Your task to perform on an android device: install app "Adobe Acrobat Reader" Image 0: 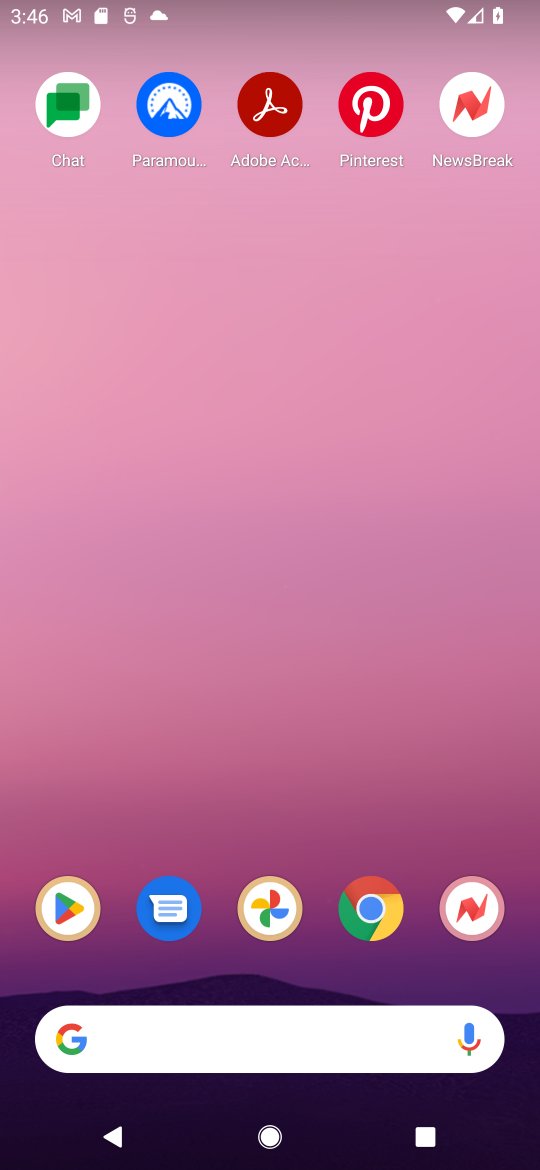
Step 0: click (61, 889)
Your task to perform on an android device: install app "Adobe Acrobat Reader" Image 1: 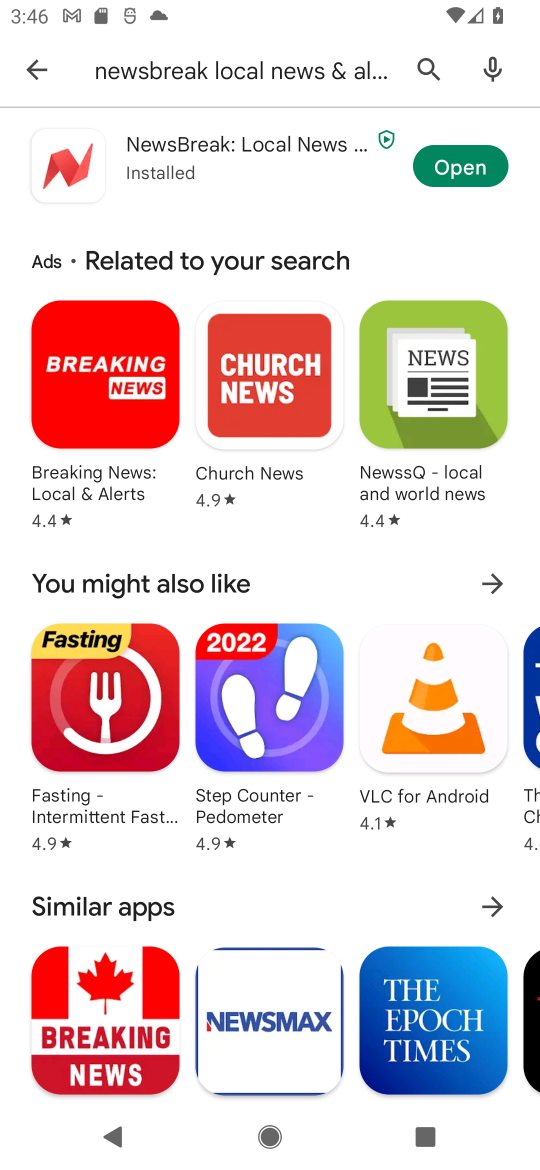
Step 1: click (431, 75)
Your task to perform on an android device: install app "Adobe Acrobat Reader" Image 2: 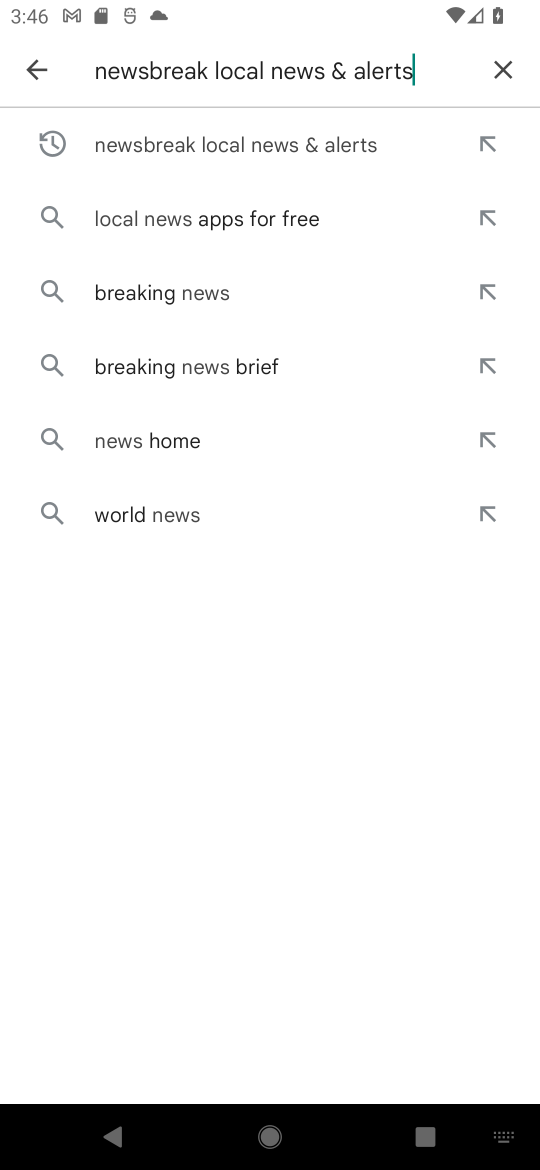
Step 2: click (505, 77)
Your task to perform on an android device: install app "Adobe Acrobat Reader" Image 3: 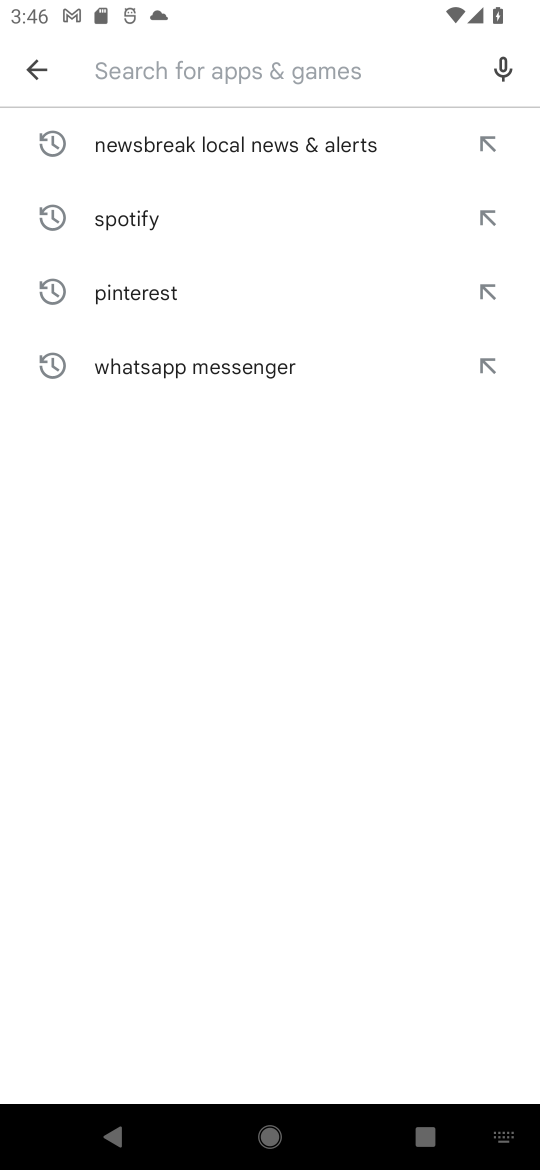
Step 3: type "Adobe Acrobat Reader"
Your task to perform on an android device: install app "Adobe Acrobat Reader" Image 4: 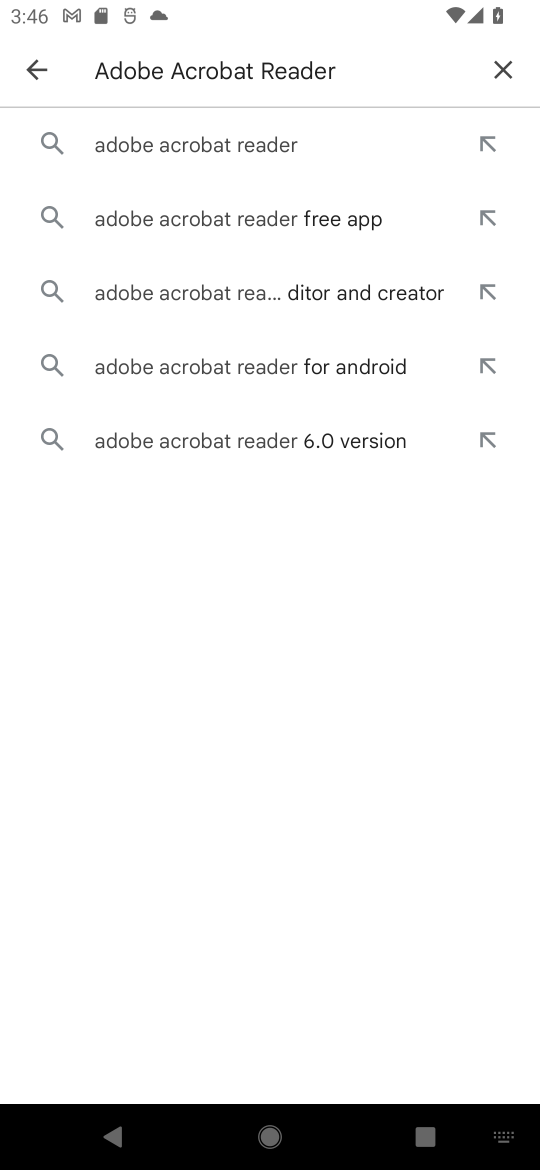
Step 4: click (348, 138)
Your task to perform on an android device: install app "Adobe Acrobat Reader" Image 5: 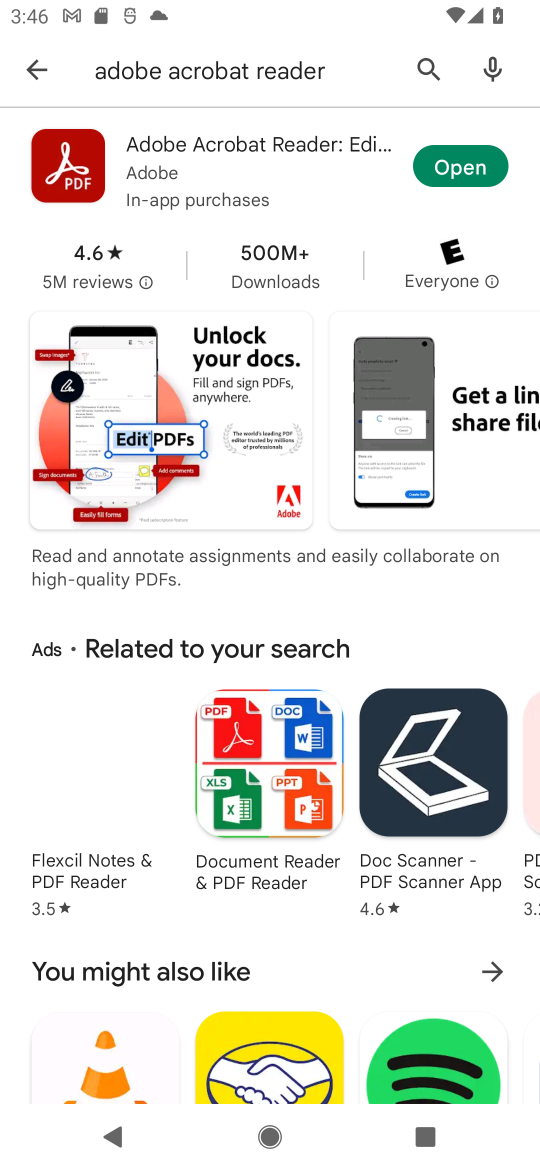
Step 5: click (456, 158)
Your task to perform on an android device: install app "Adobe Acrobat Reader" Image 6: 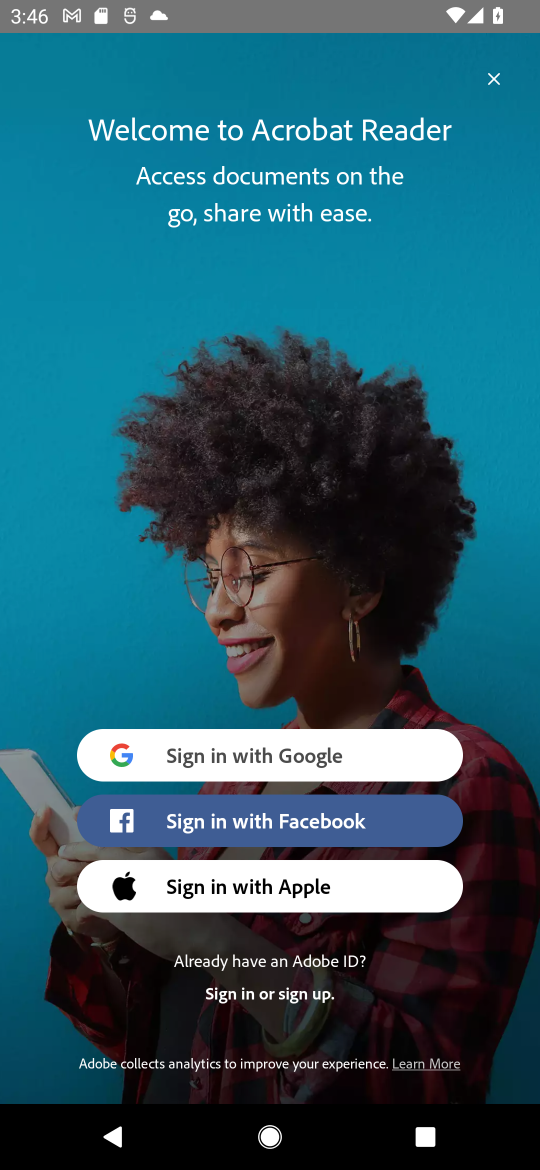
Step 6: click (255, 753)
Your task to perform on an android device: install app "Adobe Acrobat Reader" Image 7: 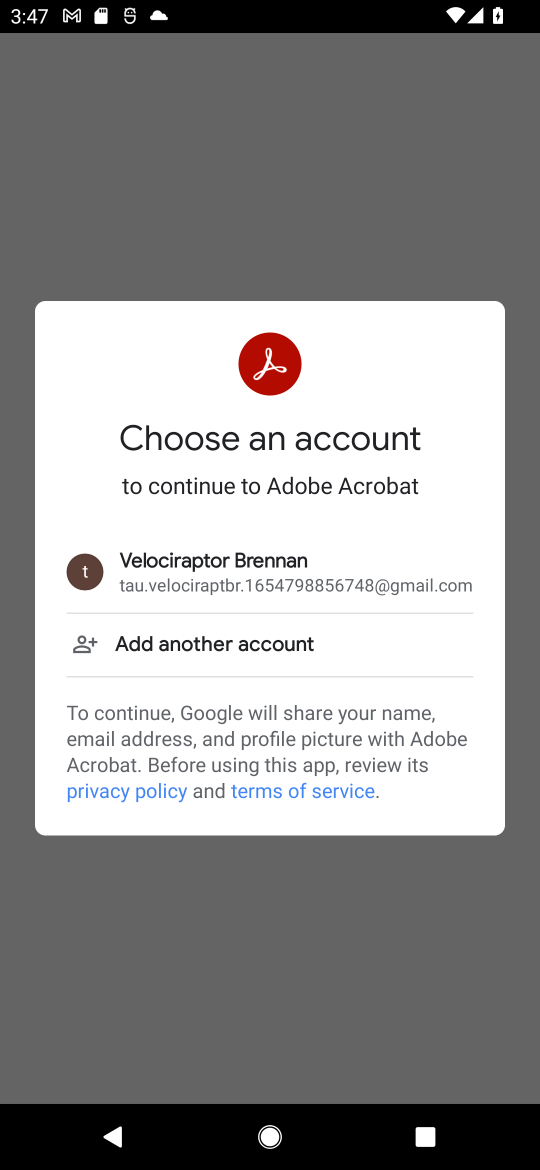
Step 7: click (230, 565)
Your task to perform on an android device: install app "Adobe Acrobat Reader" Image 8: 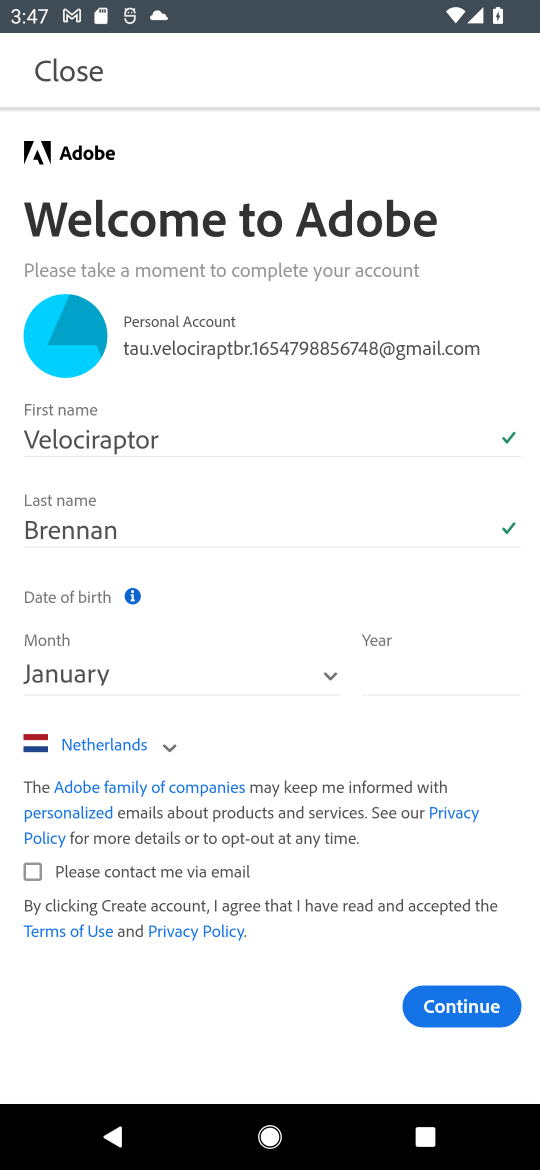
Step 8: click (333, 670)
Your task to perform on an android device: install app "Adobe Acrobat Reader" Image 9: 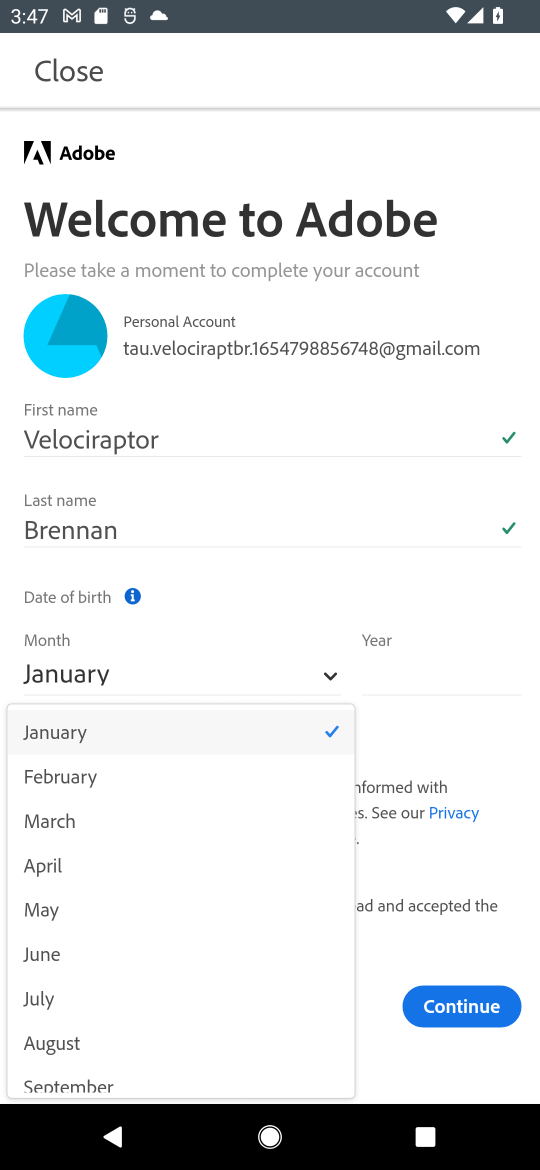
Step 9: click (69, 948)
Your task to perform on an android device: install app "Adobe Acrobat Reader" Image 10: 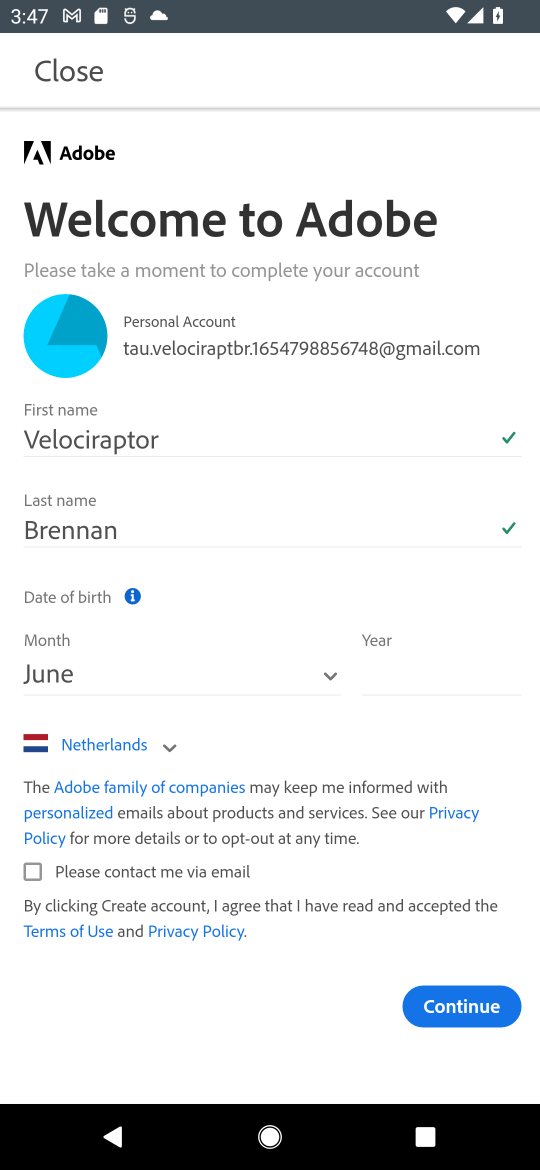
Step 10: click (418, 679)
Your task to perform on an android device: install app "Adobe Acrobat Reader" Image 11: 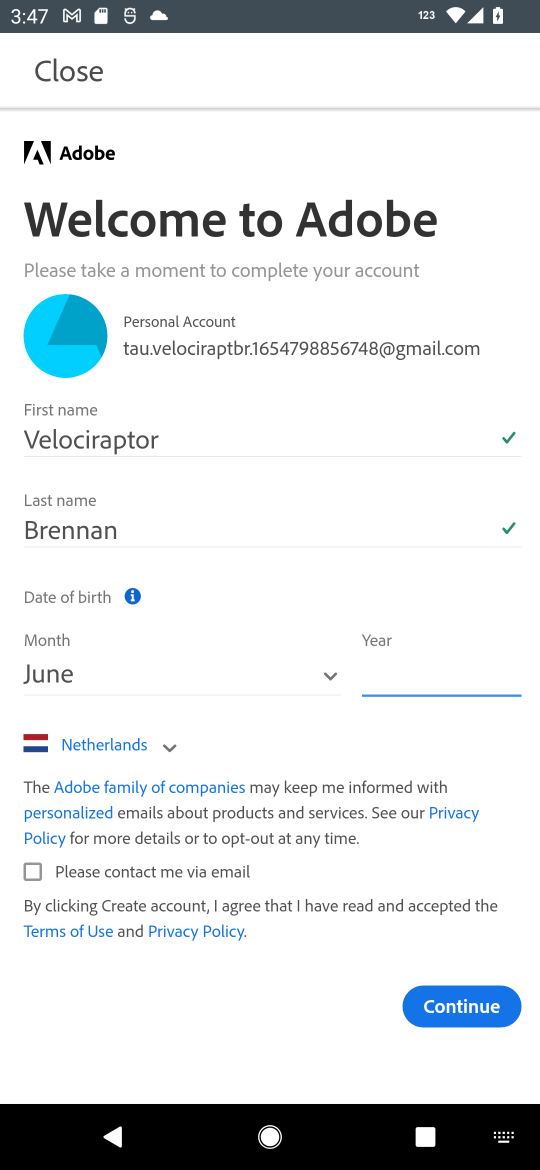
Step 11: type "1998"
Your task to perform on an android device: install app "Adobe Acrobat Reader" Image 12: 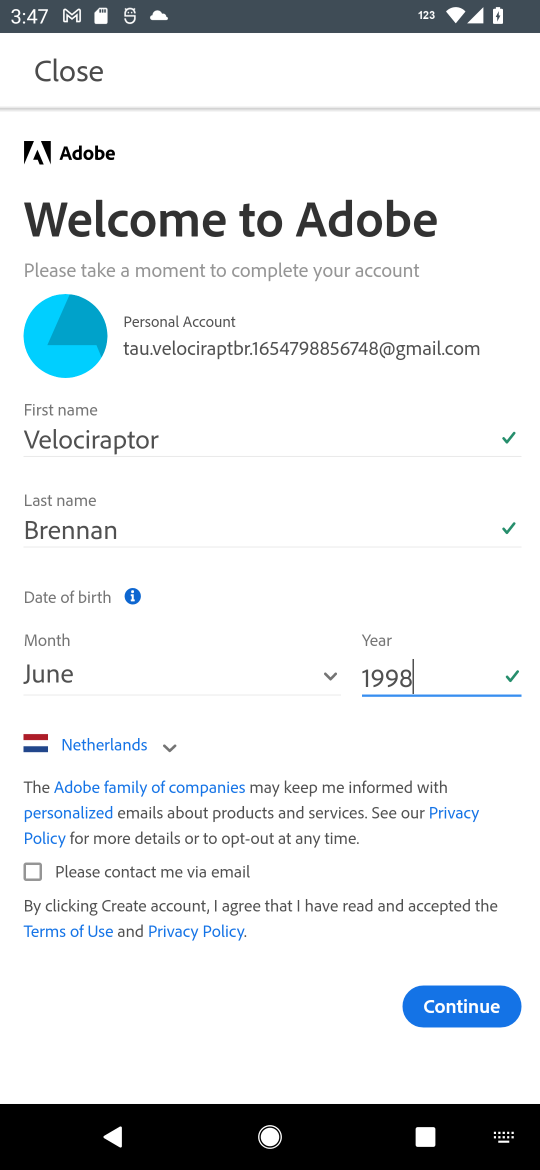
Step 12: click (467, 995)
Your task to perform on an android device: install app "Adobe Acrobat Reader" Image 13: 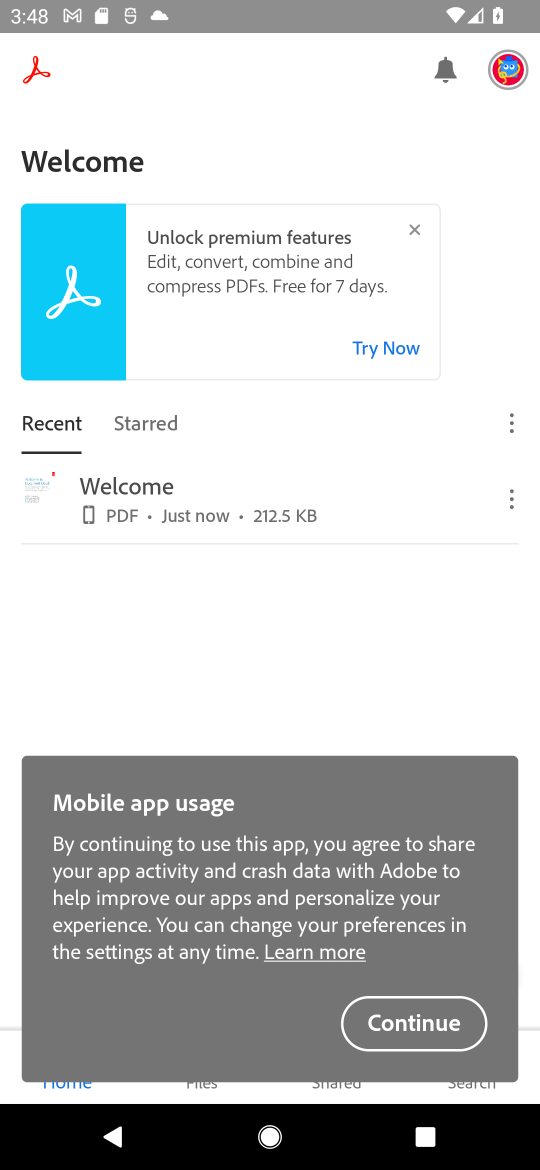
Step 13: click (418, 1017)
Your task to perform on an android device: install app "Adobe Acrobat Reader" Image 14: 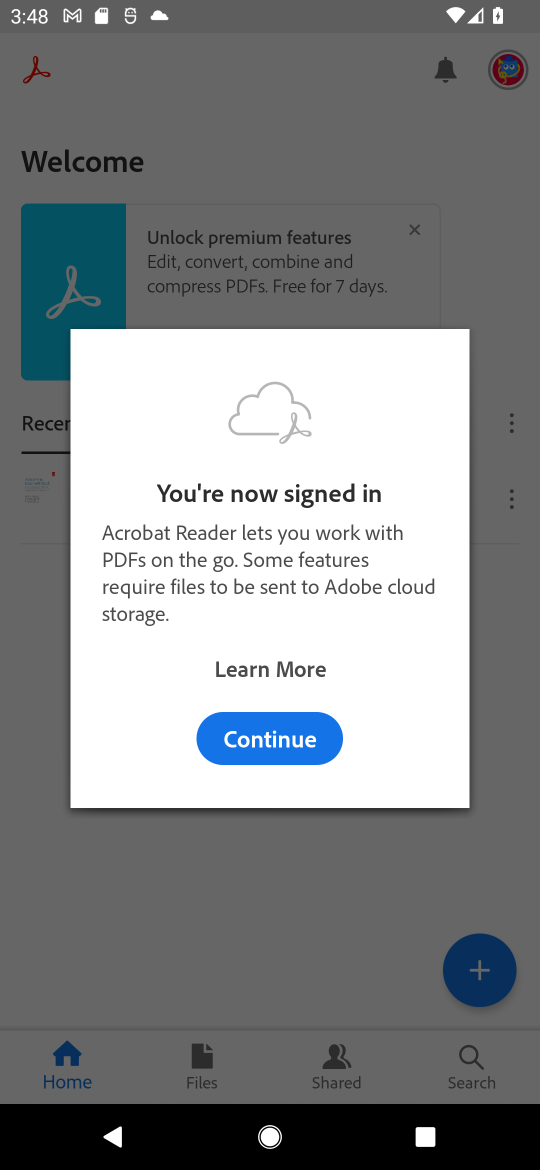
Step 14: click (274, 733)
Your task to perform on an android device: install app "Adobe Acrobat Reader" Image 15: 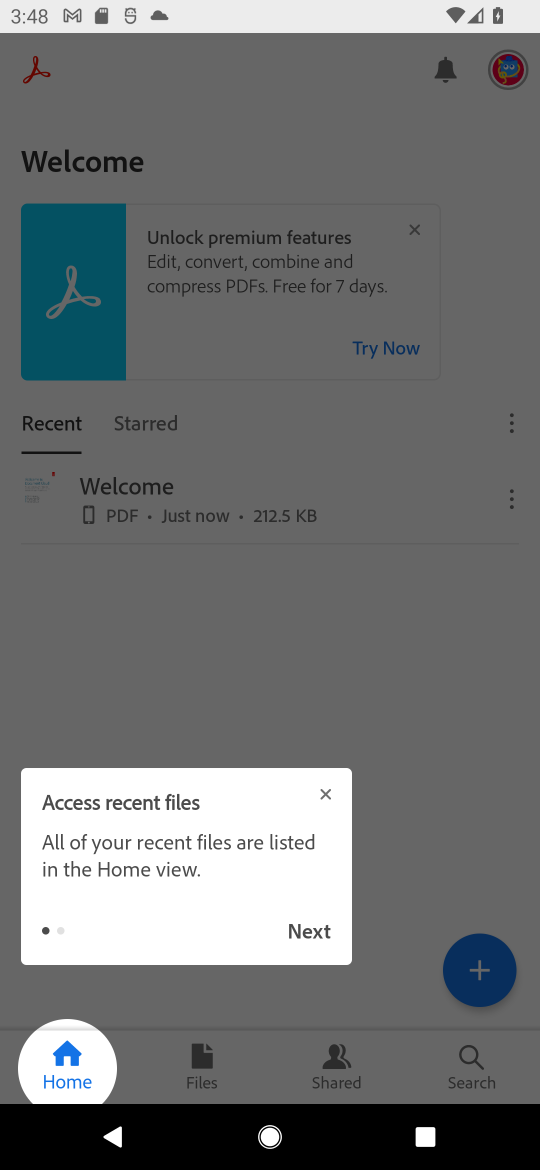
Step 15: click (310, 926)
Your task to perform on an android device: install app "Adobe Acrobat Reader" Image 16: 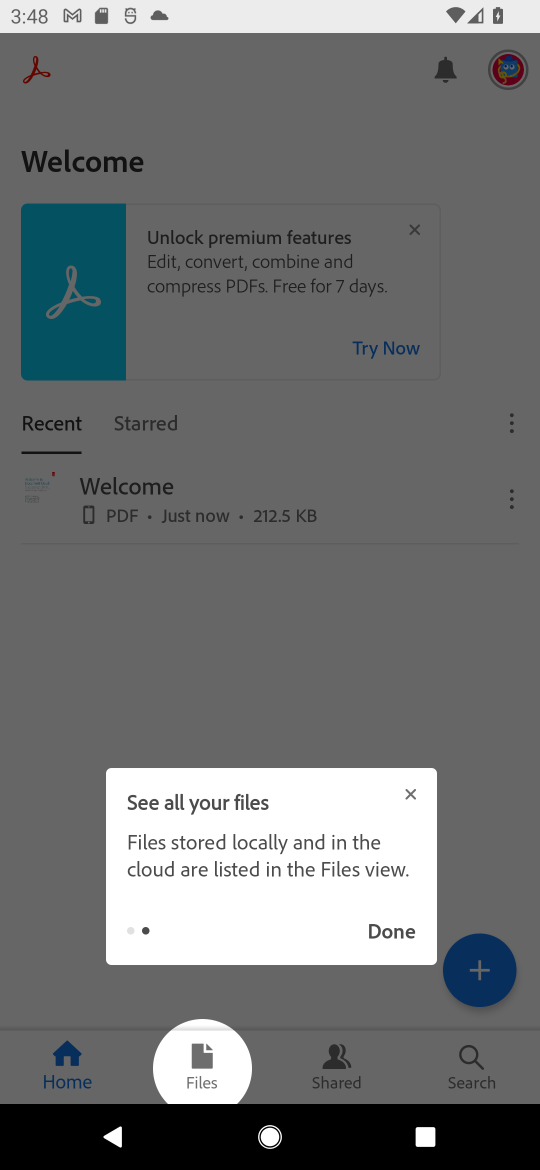
Step 16: click (388, 935)
Your task to perform on an android device: install app "Adobe Acrobat Reader" Image 17: 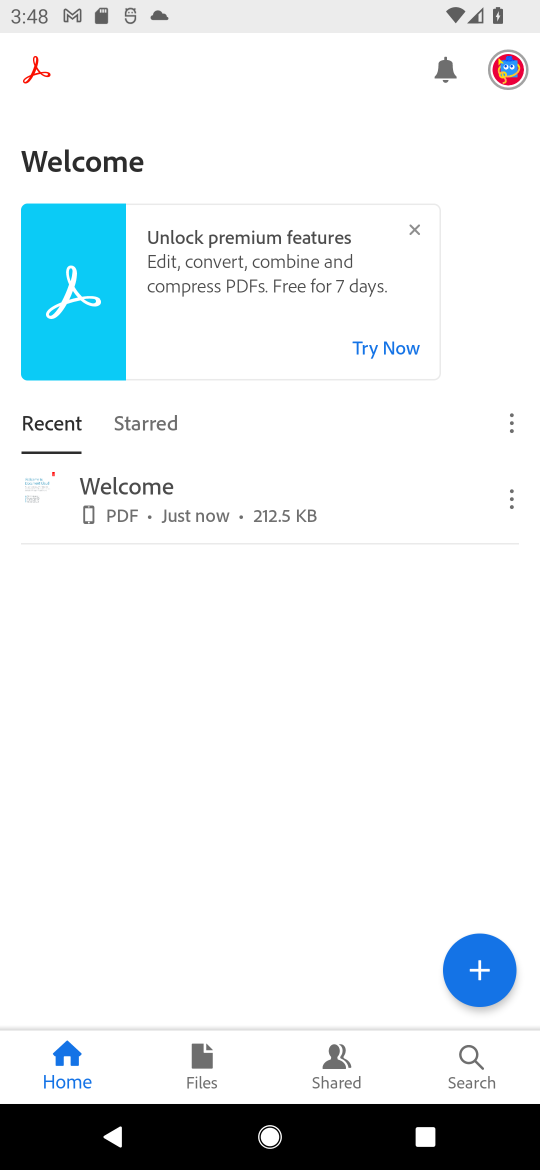
Step 17: task complete